Your task to perform on an android device: Open Chrome and go to settings Image 0: 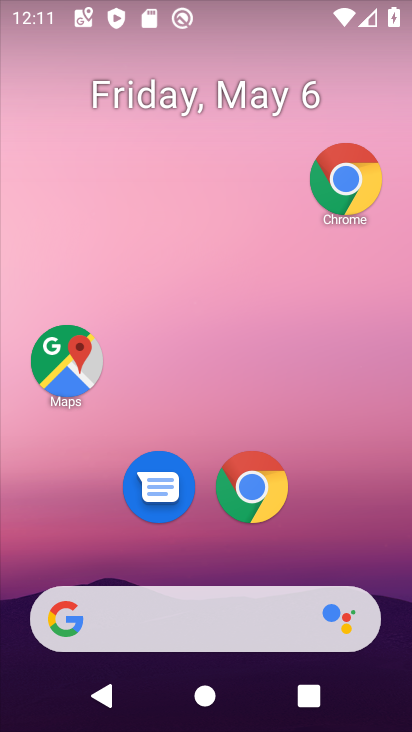
Step 0: drag from (360, 535) to (306, 169)
Your task to perform on an android device: Open Chrome and go to settings Image 1: 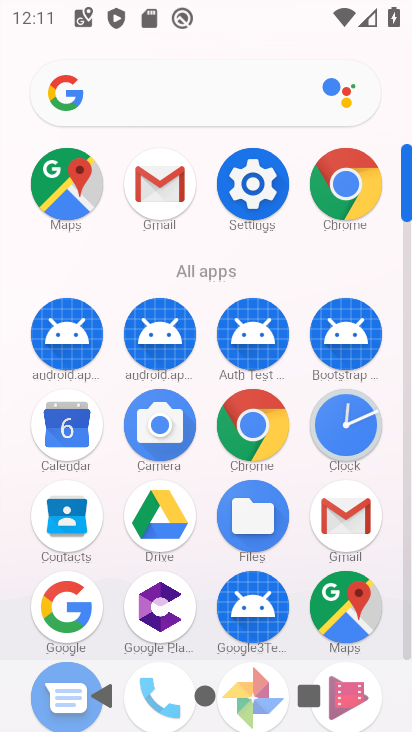
Step 1: click (338, 217)
Your task to perform on an android device: Open Chrome and go to settings Image 2: 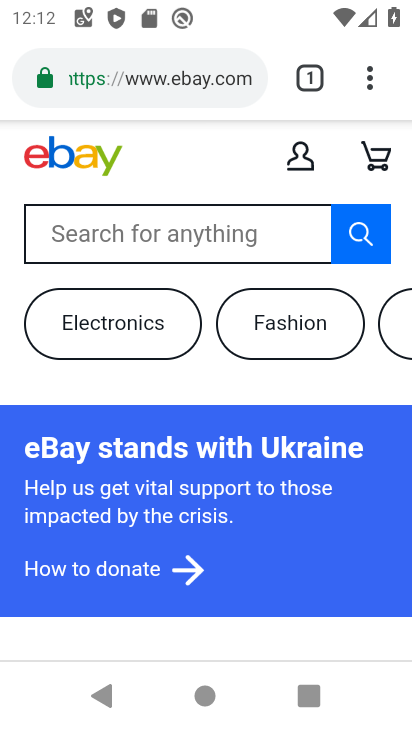
Step 2: click (359, 73)
Your task to perform on an android device: Open Chrome and go to settings Image 3: 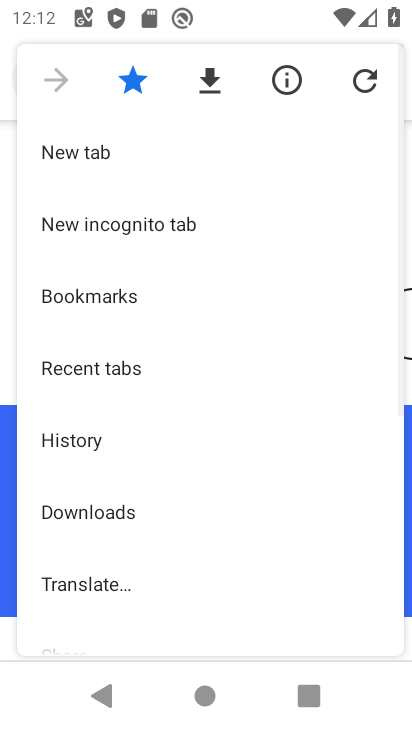
Step 3: drag from (181, 493) to (203, 365)
Your task to perform on an android device: Open Chrome and go to settings Image 4: 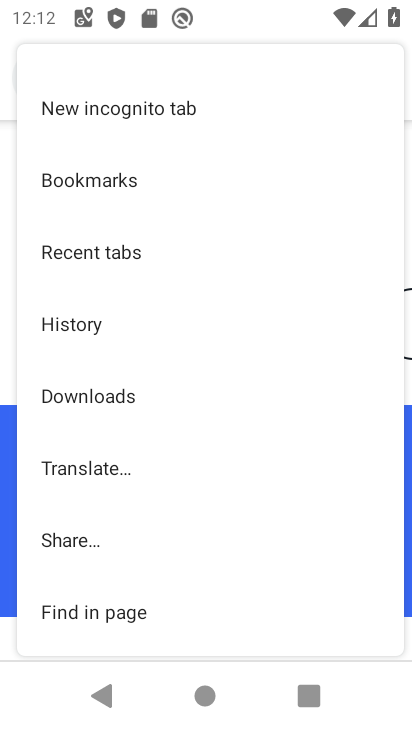
Step 4: drag from (146, 532) to (177, 399)
Your task to perform on an android device: Open Chrome and go to settings Image 5: 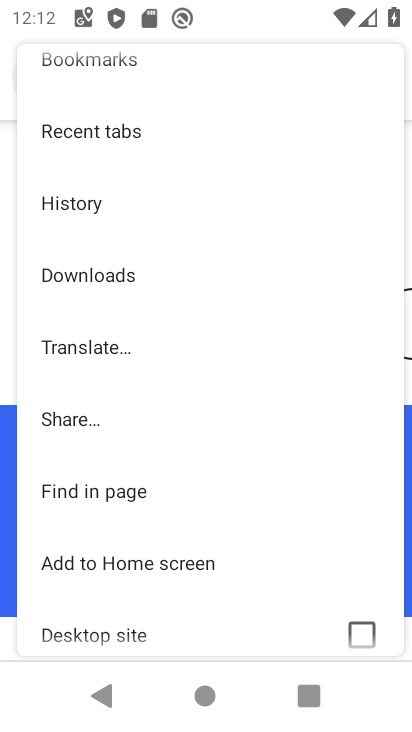
Step 5: drag from (126, 483) to (170, 302)
Your task to perform on an android device: Open Chrome and go to settings Image 6: 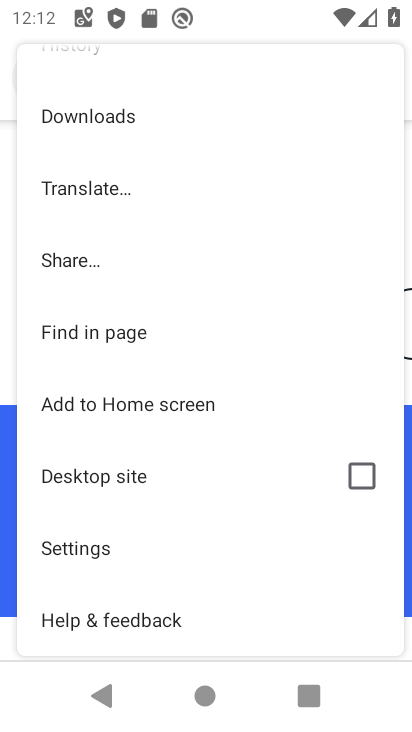
Step 6: click (133, 533)
Your task to perform on an android device: Open Chrome and go to settings Image 7: 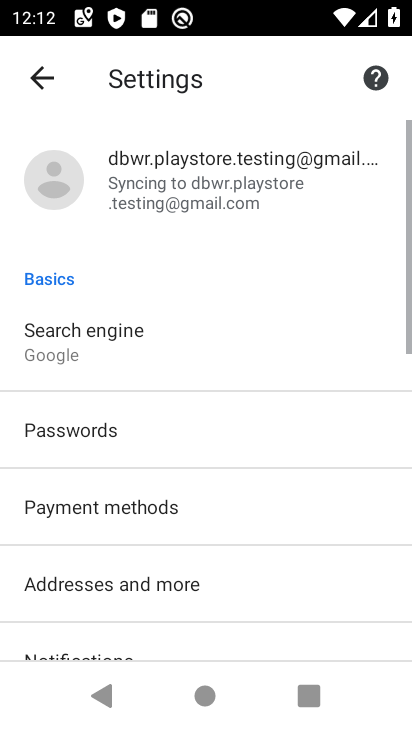
Step 7: task complete